Your task to perform on an android device: find snoozed emails in the gmail app Image 0: 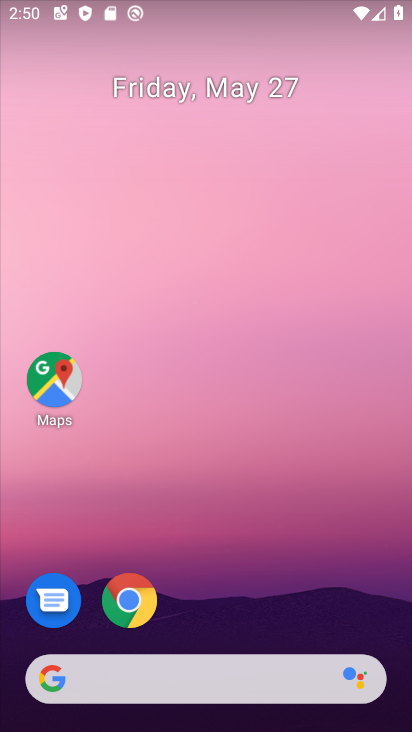
Step 0: drag from (288, 535) to (239, 61)
Your task to perform on an android device: find snoozed emails in the gmail app Image 1: 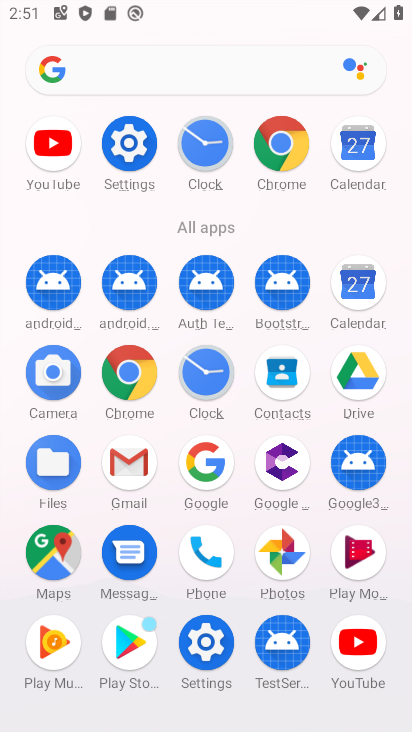
Step 1: click (137, 470)
Your task to perform on an android device: find snoozed emails in the gmail app Image 2: 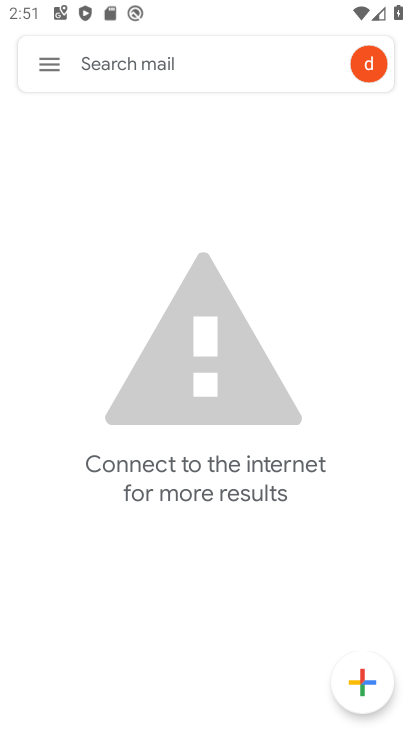
Step 2: click (43, 66)
Your task to perform on an android device: find snoozed emails in the gmail app Image 3: 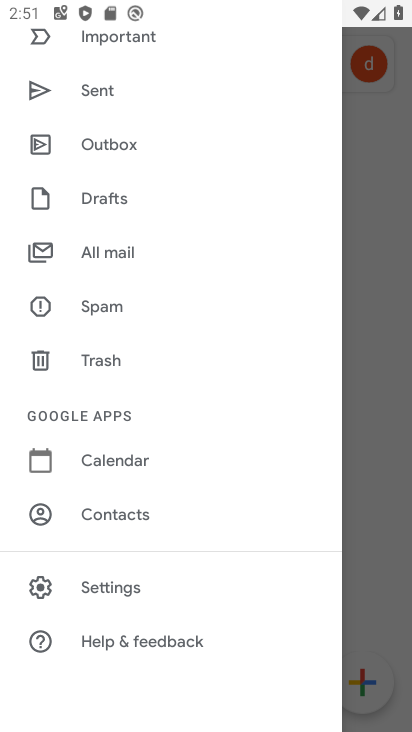
Step 3: drag from (128, 214) to (181, 481)
Your task to perform on an android device: find snoozed emails in the gmail app Image 4: 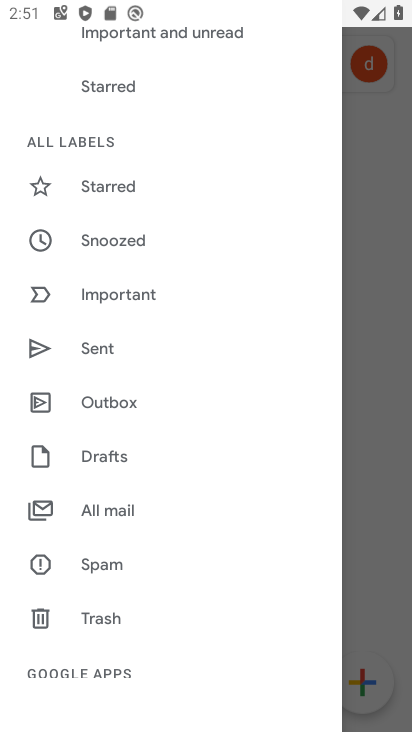
Step 4: click (121, 228)
Your task to perform on an android device: find snoozed emails in the gmail app Image 5: 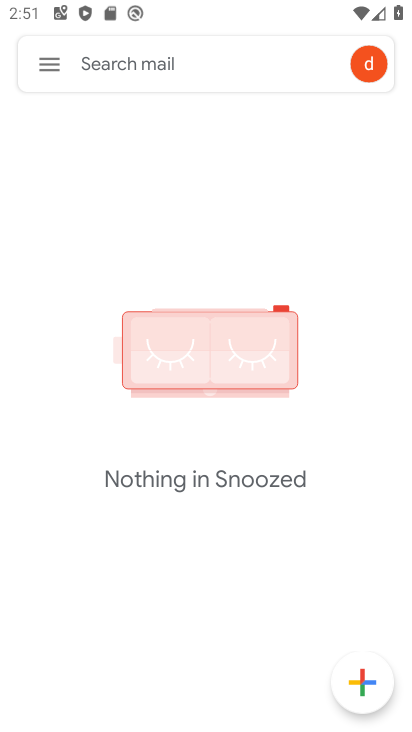
Step 5: task complete